Your task to perform on an android device: turn off translation in the chrome app Image 0: 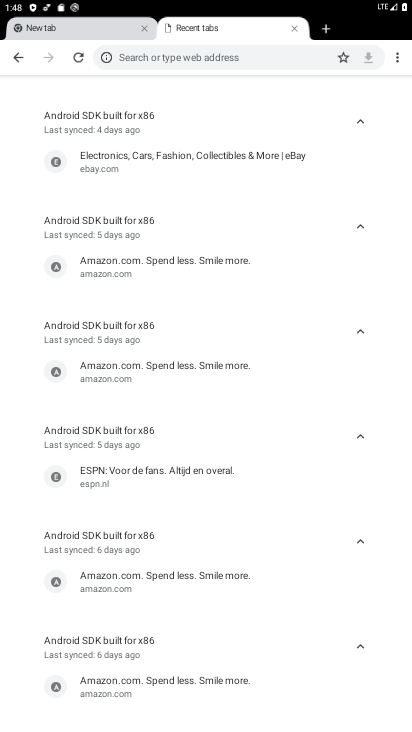
Step 0: press home button
Your task to perform on an android device: turn off translation in the chrome app Image 1: 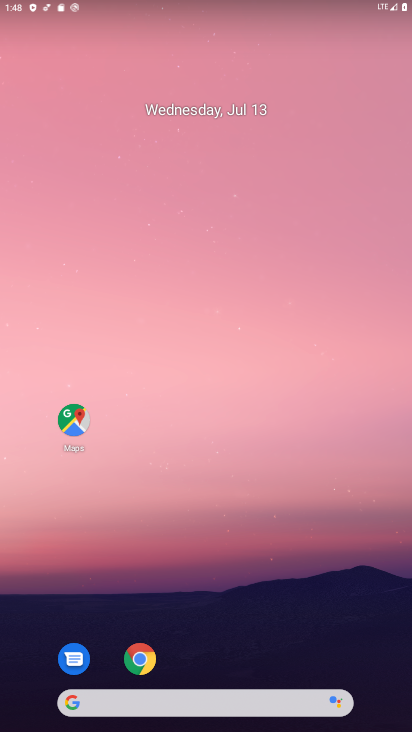
Step 1: click (139, 660)
Your task to perform on an android device: turn off translation in the chrome app Image 2: 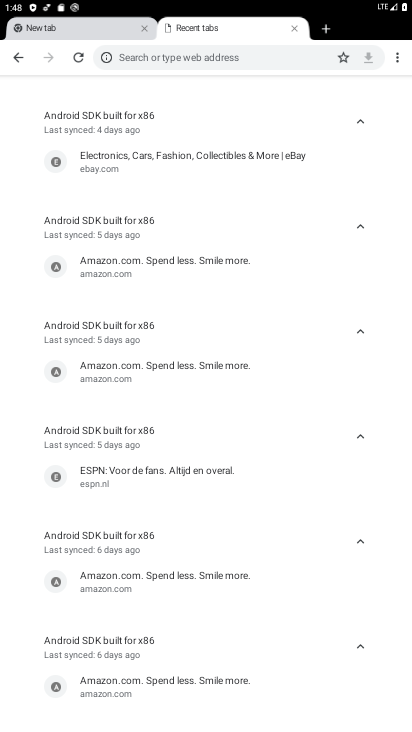
Step 2: click (395, 60)
Your task to perform on an android device: turn off translation in the chrome app Image 3: 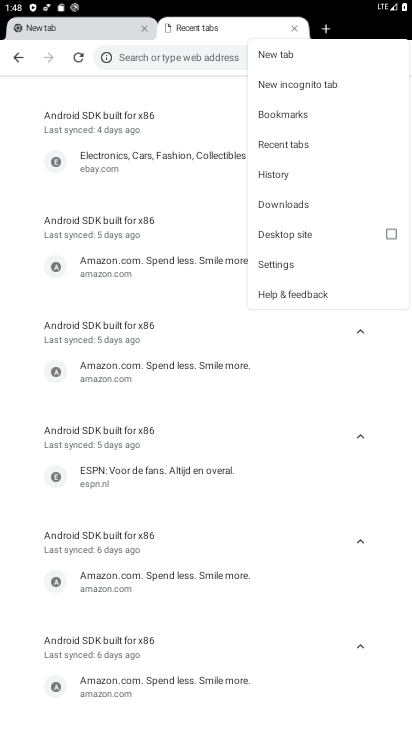
Step 3: click (281, 263)
Your task to perform on an android device: turn off translation in the chrome app Image 4: 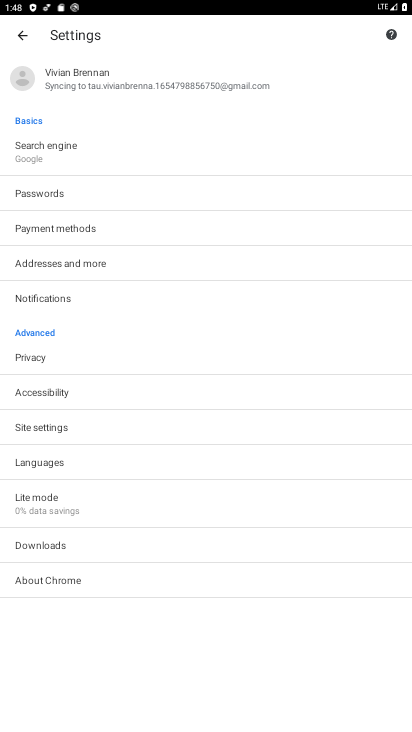
Step 4: click (41, 463)
Your task to perform on an android device: turn off translation in the chrome app Image 5: 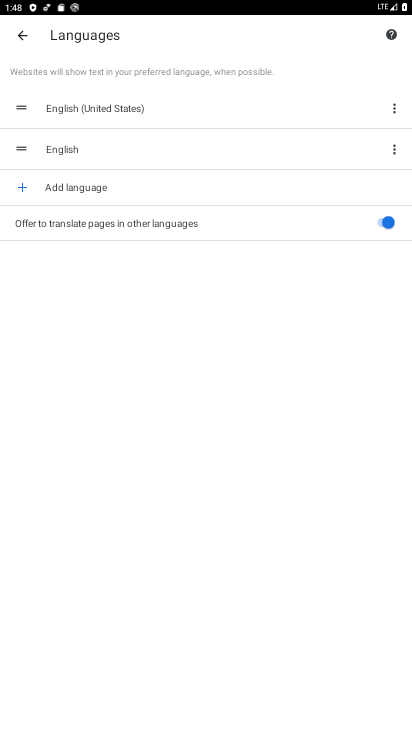
Step 5: click (381, 221)
Your task to perform on an android device: turn off translation in the chrome app Image 6: 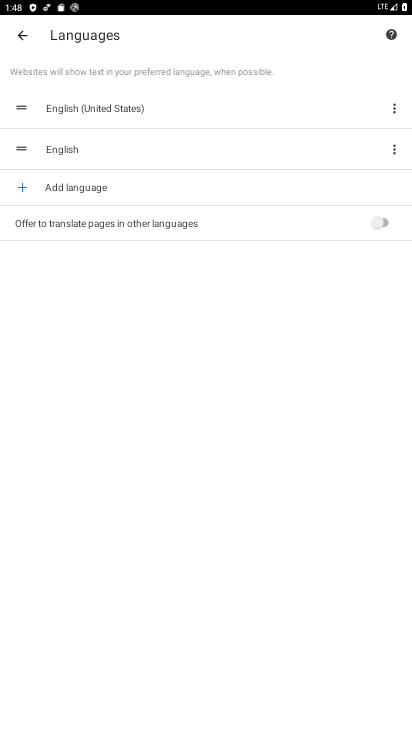
Step 6: task complete